Your task to perform on an android device: open app "Facebook Lite" (install if not already installed) and enter user name: "suppers@inbox.com" and password: "downplayed" Image 0: 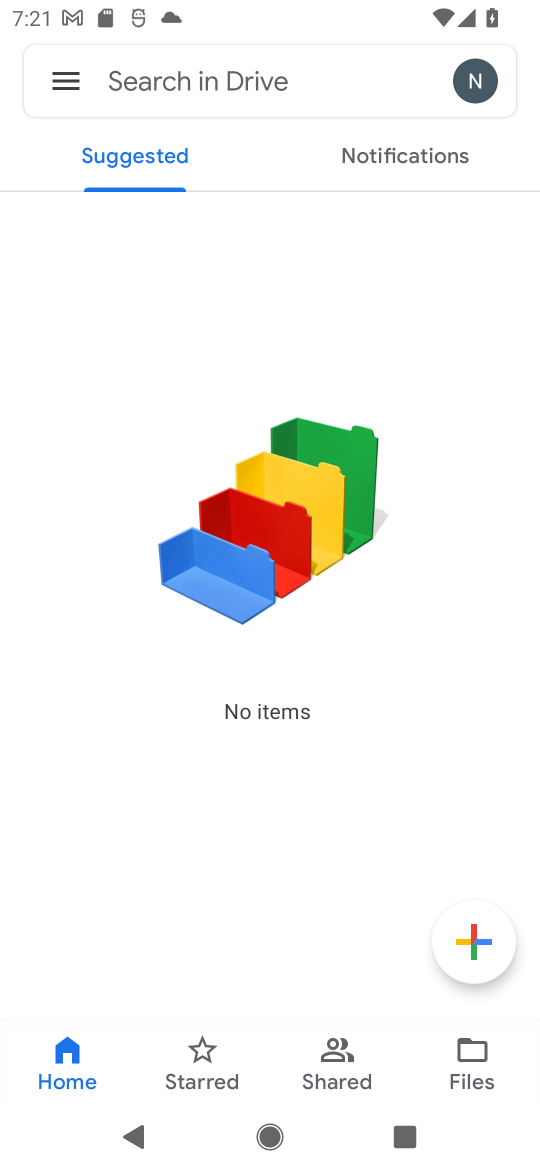
Step 0: press home button
Your task to perform on an android device: open app "Facebook Lite" (install if not already installed) and enter user name: "suppers@inbox.com" and password: "downplayed" Image 1: 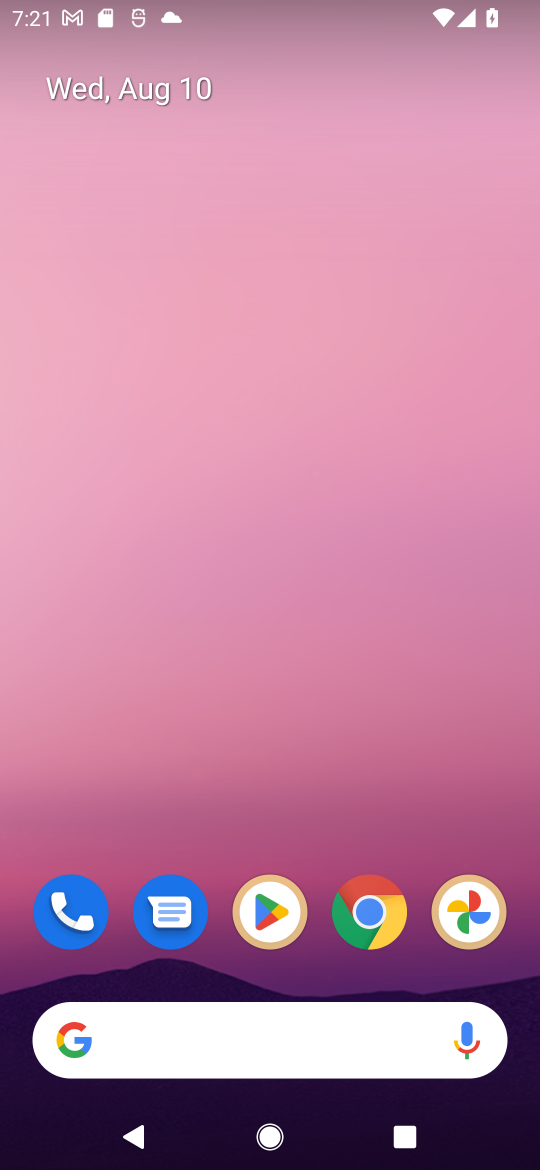
Step 1: drag from (532, 958) to (238, 0)
Your task to perform on an android device: open app "Facebook Lite" (install if not already installed) and enter user name: "suppers@inbox.com" and password: "downplayed" Image 2: 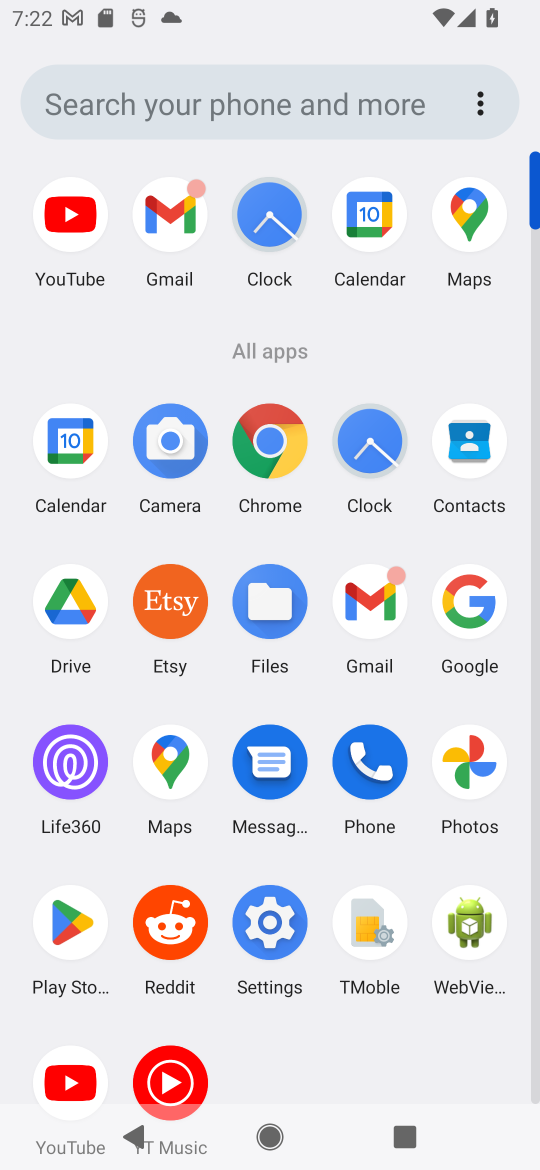
Step 2: click (55, 914)
Your task to perform on an android device: open app "Facebook Lite" (install if not already installed) and enter user name: "suppers@inbox.com" and password: "downplayed" Image 3: 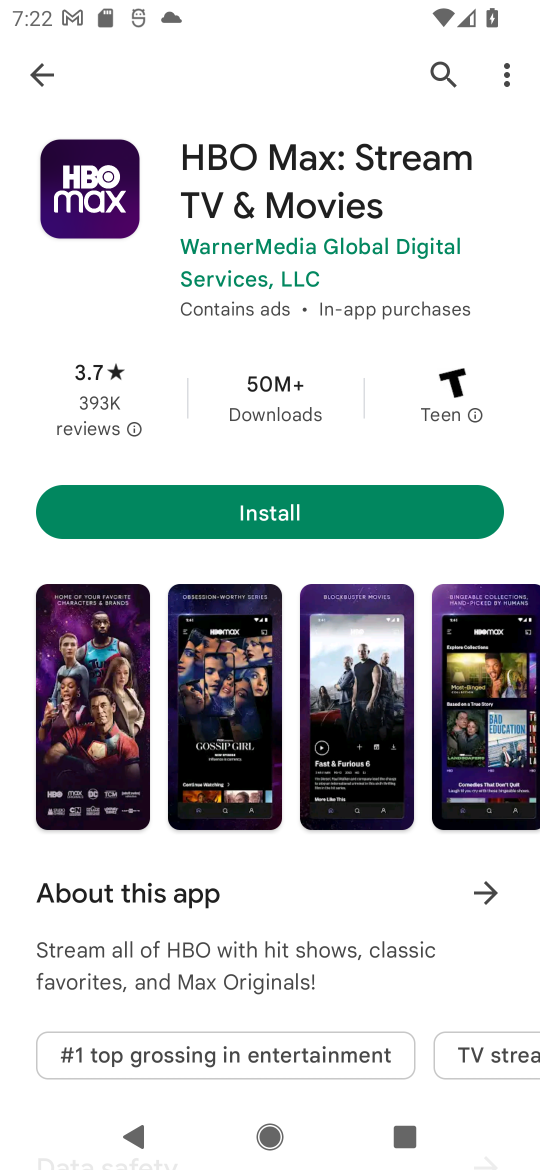
Step 3: press back button
Your task to perform on an android device: open app "Facebook Lite" (install if not already installed) and enter user name: "suppers@inbox.com" and password: "downplayed" Image 4: 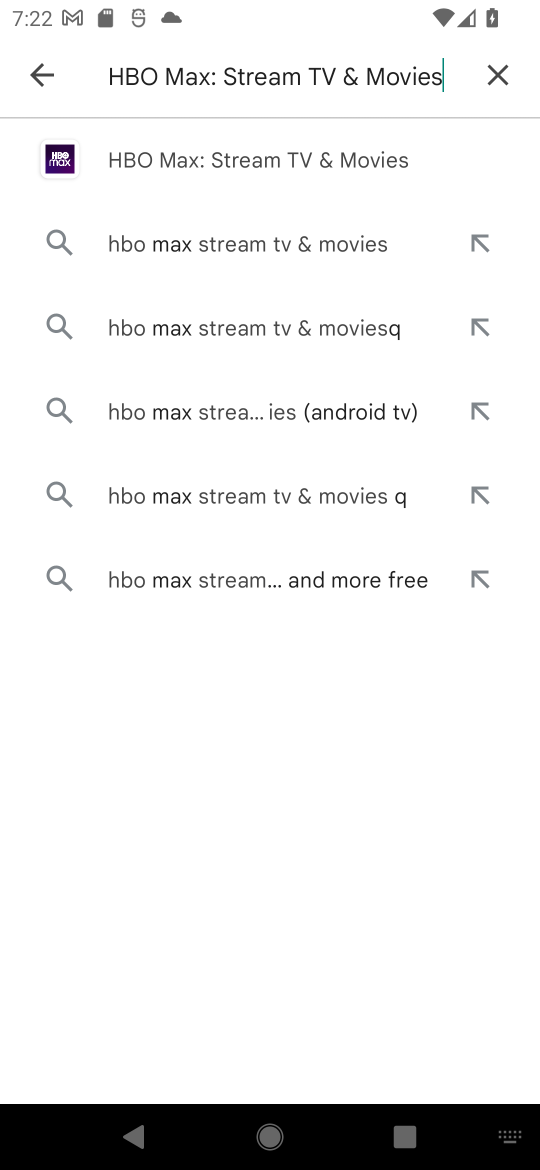
Step 4: press back button
Your task to perform on an android device: open app "Facebook Lite" (install if not already installed) and enter user name: "suppers@inbox.com" and password: "downplayed" Image 5: 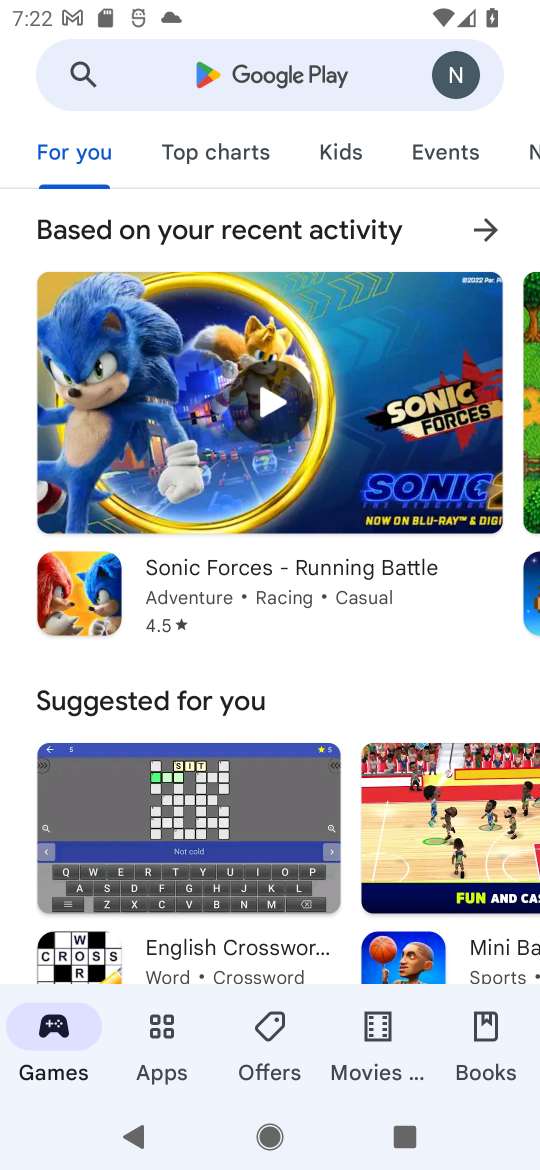
Step 5: click (190, 73)
Your task to perform on an android device: open app "Facebook Lite" (install if not already installed) and enter user name: "suppers@inbox.com" and password: "downplayed" Image 6: 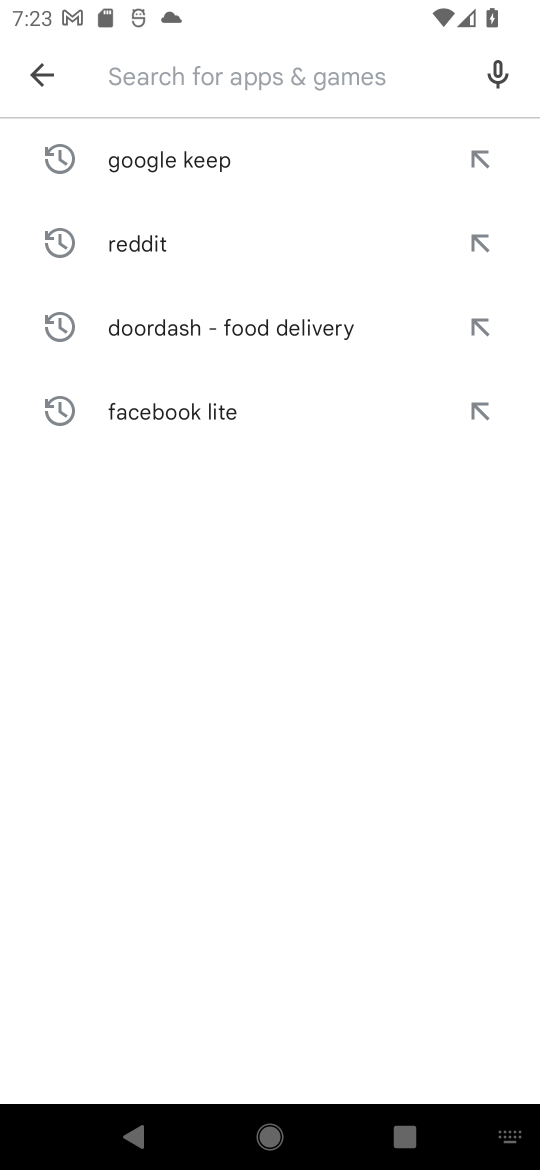
Step 6: type "Facebook Lite"
Your task to perform on an android device: open app "Facebook Lite" (install if not already installed) and enter user name: "suppers@inbox.com" and password: "downplayed" Image 7: 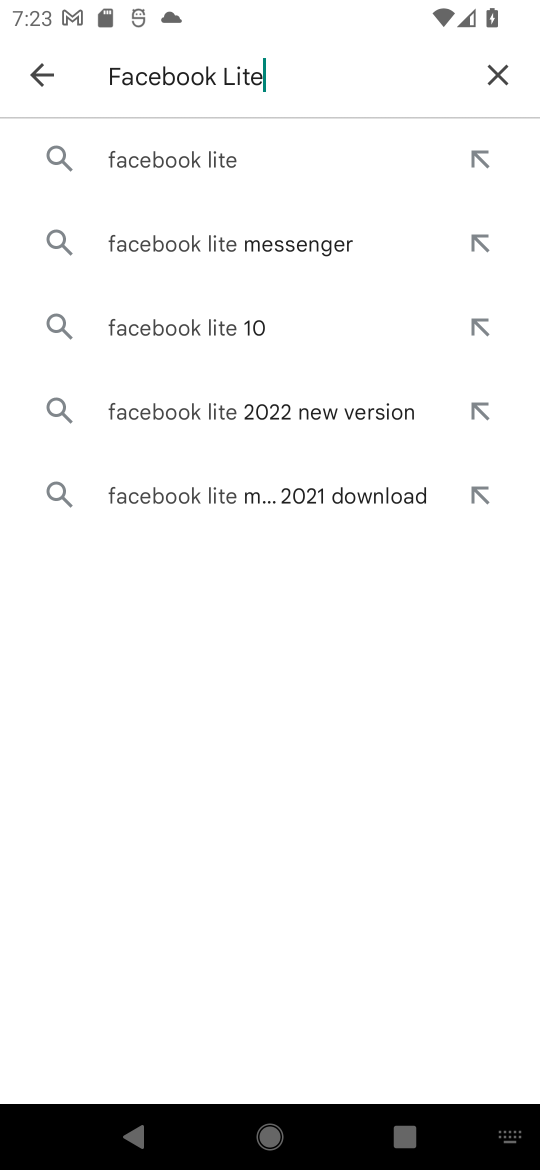
Step 7: click (151, 162)
Your task to perform on an android device: open app "Facebook Lite" (install if not already installed) and enter user name: "suppers@inbox.com" and password: "downplayed" Image 8: 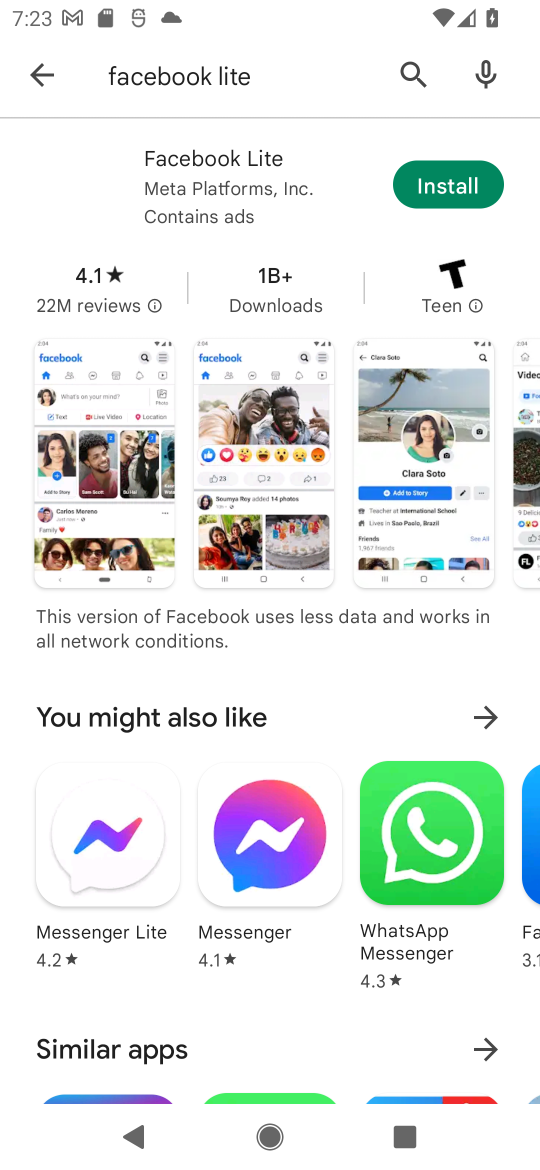
Step 8: task complete